Your task to perform on an android device: Search for pizza restaurants on Maps Image 0: 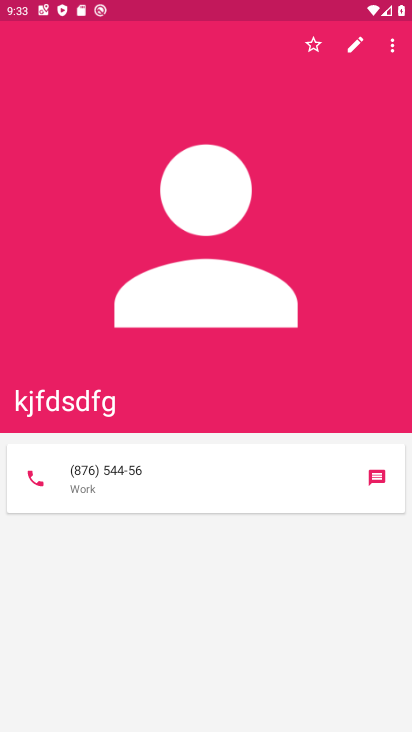
Step 0: press home button
Your task to perform on an android device: Search for pizza restaurants on Maps Image 1: 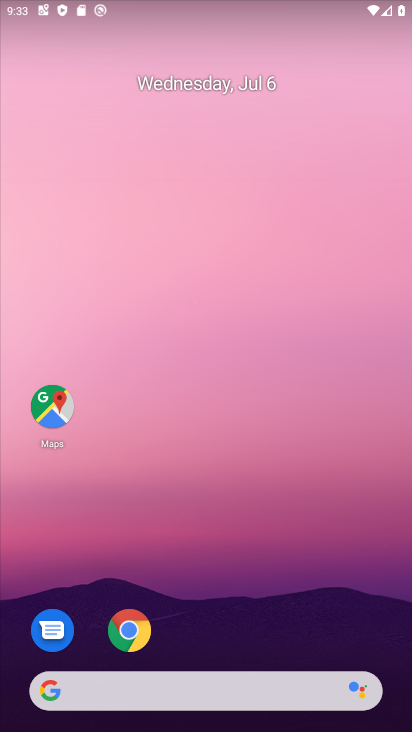
Step 1: click (51, 410)
Your task to perform on an android device: Search for pizza restaurants on Maps Image 2: 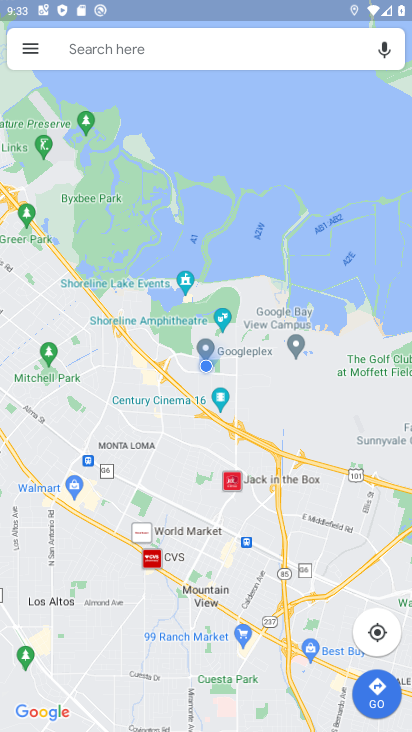
Step 2: click (106, 47)
Your task to perform on an android device: Search for pizza restaurants on Maps Image 3: 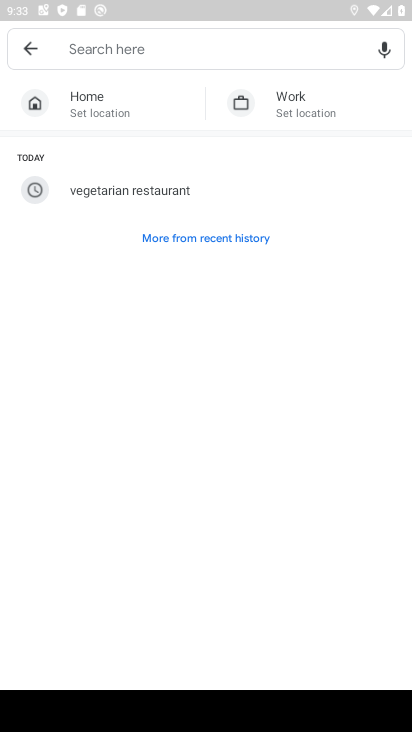
Step 3: type "pizza restaurants"
Your task to perform on an android device: Search for pizza restaurants on Maps Image 4: 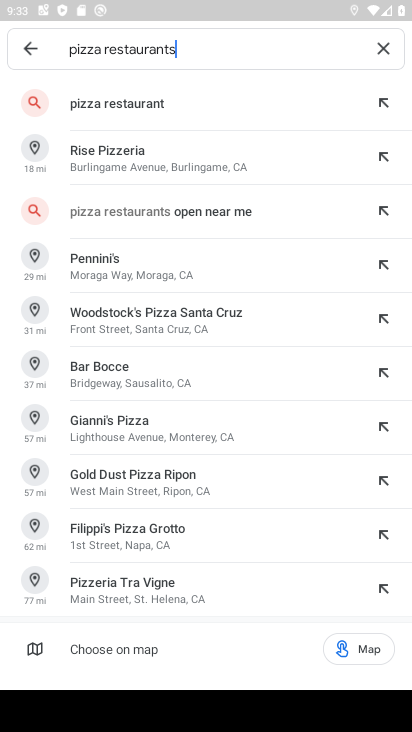
Step 4: click (113, 108)
Your task to perform on an android device: Search for pizza restaurants on Maps Image 5: 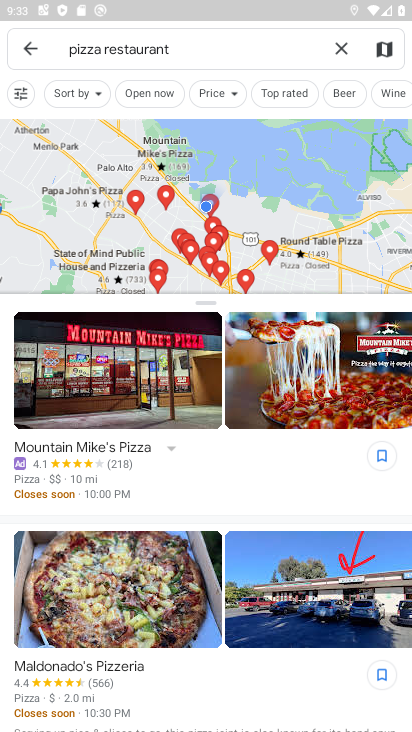
Step 5: task complete